Your task to perform on an android device: Search for "usb-c" on amazon, select the first entry, and add it to the cart. Image 0: 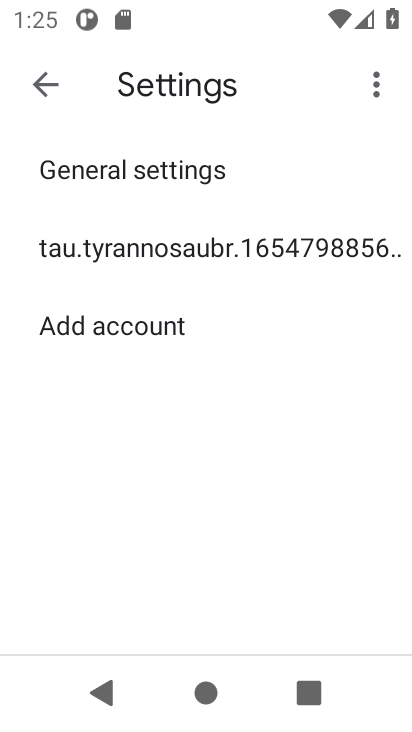
Step 0: press home button
Your task to perform on an android device: Search for "usb-c" on amazon, select the first entry, and add it to the cart. Image 1: 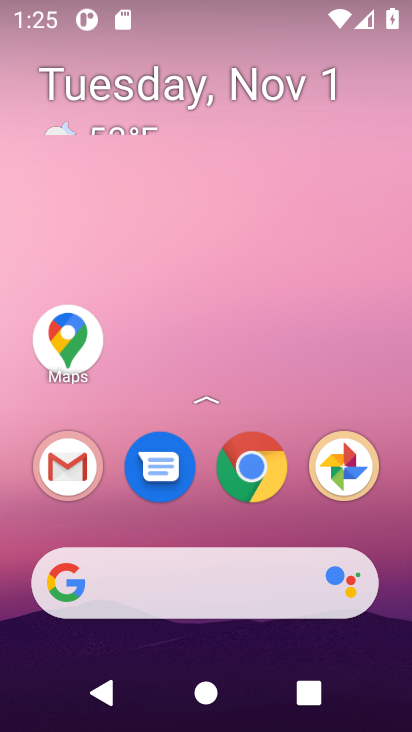
Step 1: click (252, 468)
Your task to perform on an android device: Search for "usb-c" on amazon, select the first entry, and add it to the cart. Image 2: 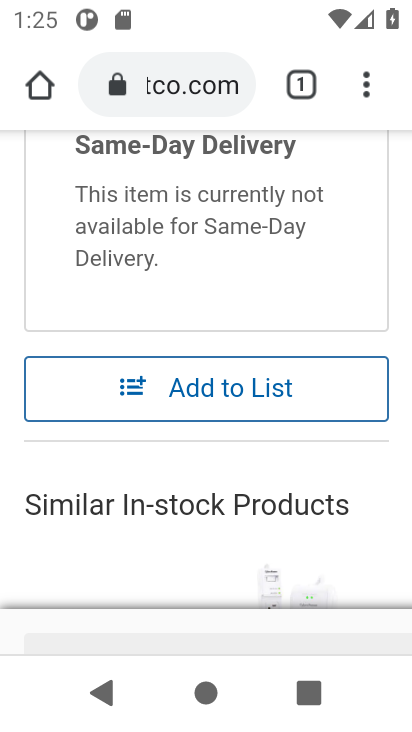
Step 2: click (216, 76)
Your task to perform on an android device: Search for "usb-c" on amazon, select the first entry, and add it to the cart. Image 3: 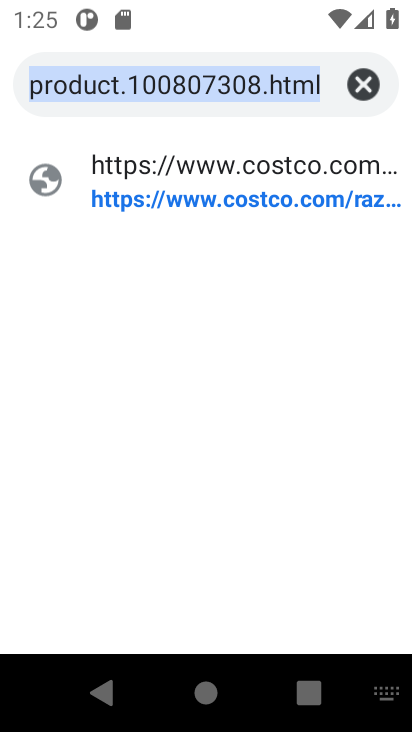
Step 3: click (364, 89)
Your task to perform on an android device: Search for "usb-c" on amazon, select the first entry, and add it to the cart. Image 4: 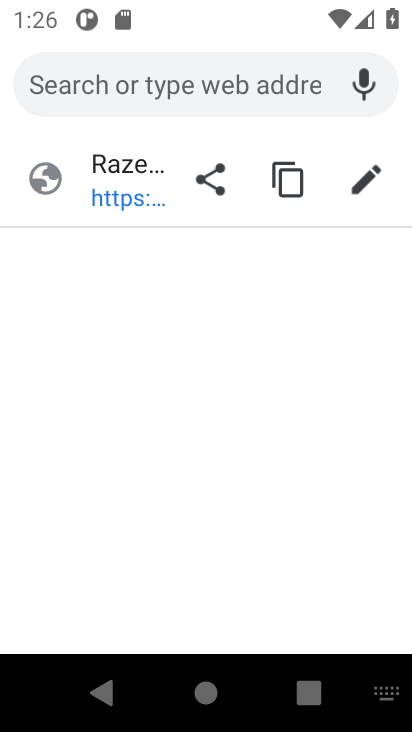
Step 4: type "amazon"
Your task to perform on an android device: Search for "usb-c" on amazon, select the first entry, and add it to the cart. Image 5: 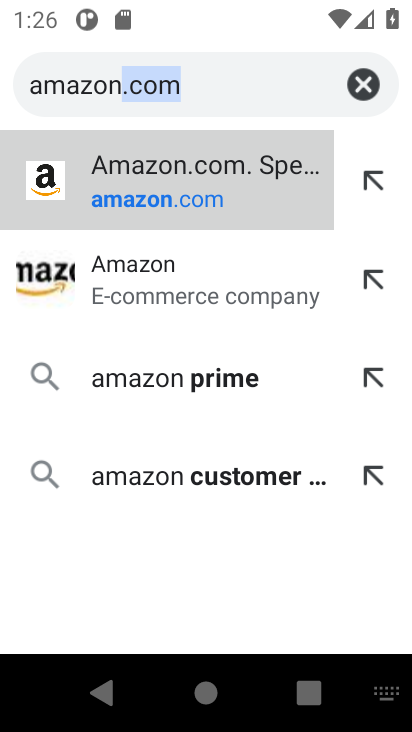
Step 5: click (133, 266)
Your task to perform on an android device: Search for "usb-c" on amazon, select the first entry, and add it to the cart. Image 6: 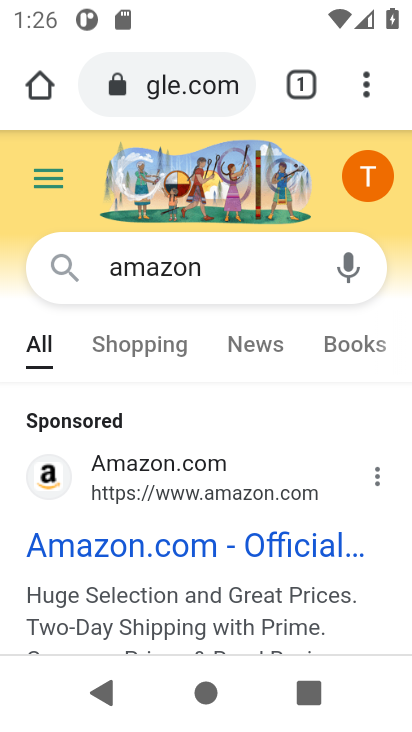
Step 6: drag from (239, 523) to (289, 150)
Your task to perform on an android device: Search for "usb-c" on amazon, select the first entry, and add it to the cart. Image 7: 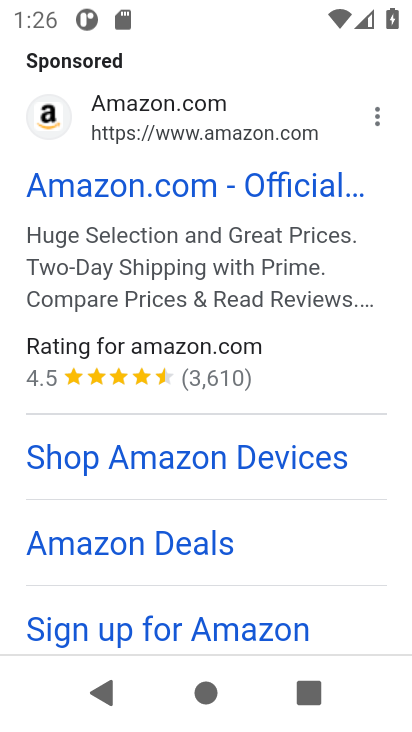
Step 7: drag from (288, 517) to (320, 127)
Your task to perform on an android device: Search for "usb-c" on amazon, select the first entry, and add it to the cart. Image 8: 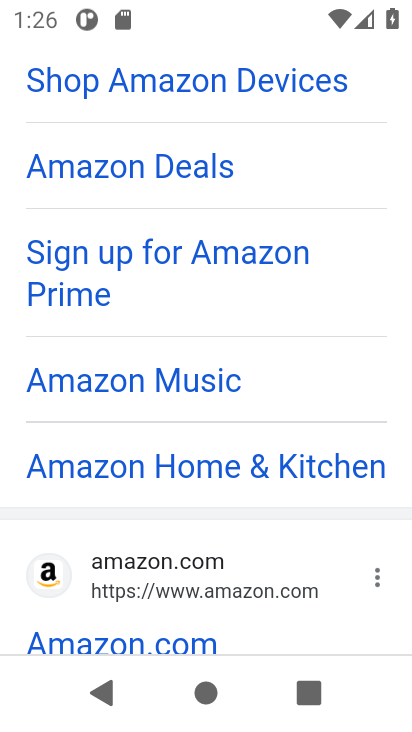
Step 8: click (203, 595)
Your task to perform on an android device: Search for "usb-c" on amazon, select the first entry, and add it to the cart. Image 9: 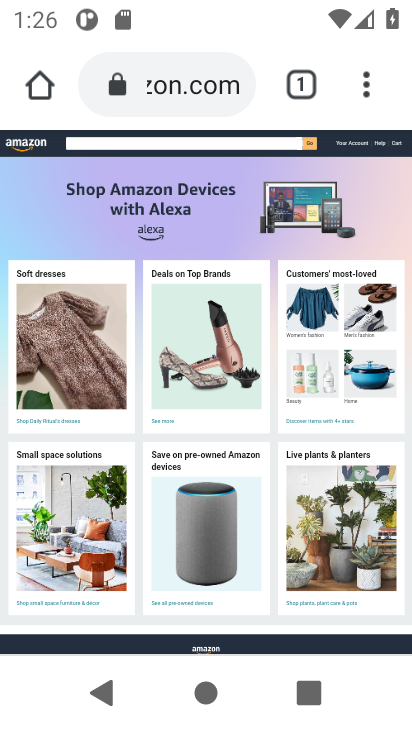
Step 9: click (180, 145)
Your task to perform on an android device: Search for "usb-c" on amazon, select the first entry, and add it to the cart. Image 10: 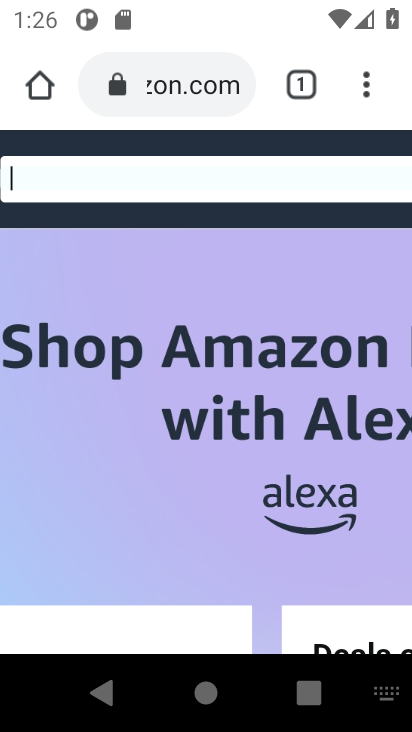
Step 10: type "usb-c"
Your task to perform on an android device: Search for "usb-c" on amazon, select the first entry, and add it to the cart. Image 11: 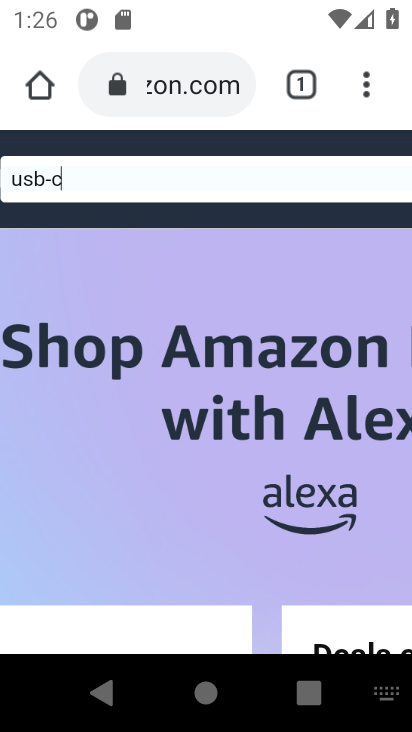
Step 11: drag from (305, 246) to (14, 263)
Your task to perform on an android device: Search for "usb-c" on amazon, select the first entry, and add it to the cart. Image 12: 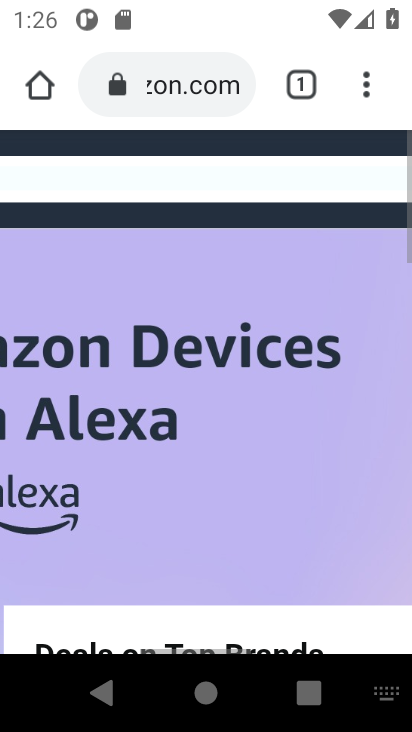
Step 12: drag from (286, 236) to (40, 232)
Your task to perform on an android device: Search for "usb-c" on amazon, select the first entry, and add it to the cart. Image 13: 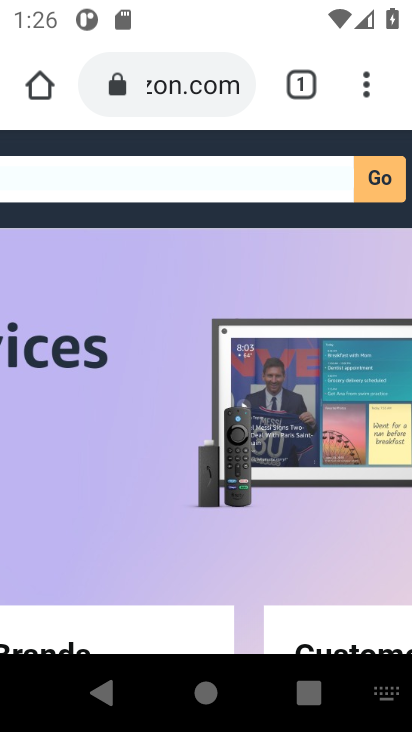
Step 13: click (342, 176)
Your task to perform on an android device: Search for "usb-c" on amazon, select the first entry, and add it to the cart. Image 14: 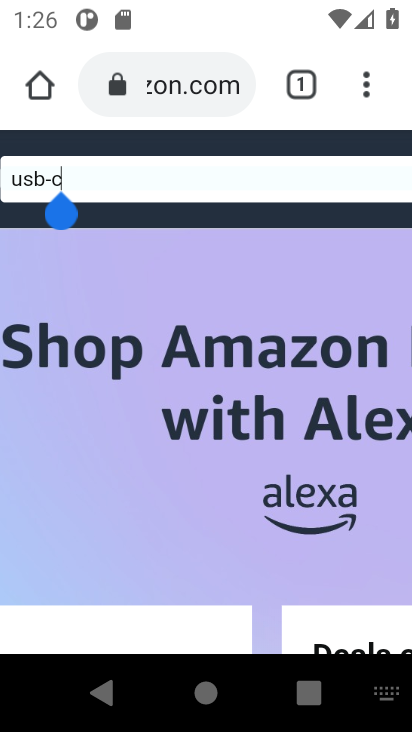
Step 14: drag from (339, 215) to (24, 224)
Your task to perform on an android device: Search for "usb-c" on amazon, select the first entry, and add it to the cart. Image 15: 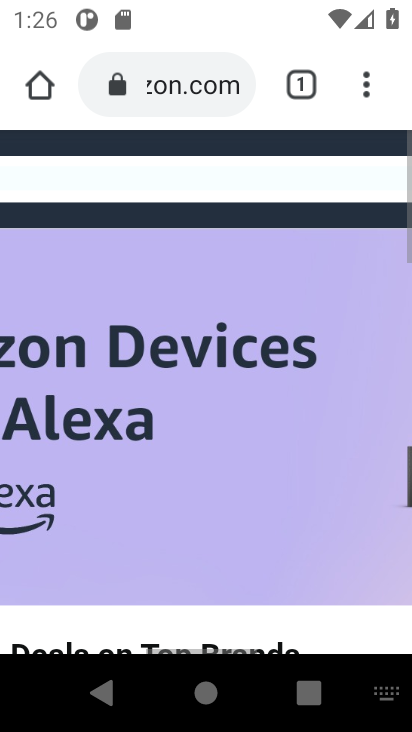
Step 15: drag from (300, 185) to (29, 188)
Your task to perform on an android device: Search for "usb-c" on amazon, select the first entry, and add it to the cart. Image 16: 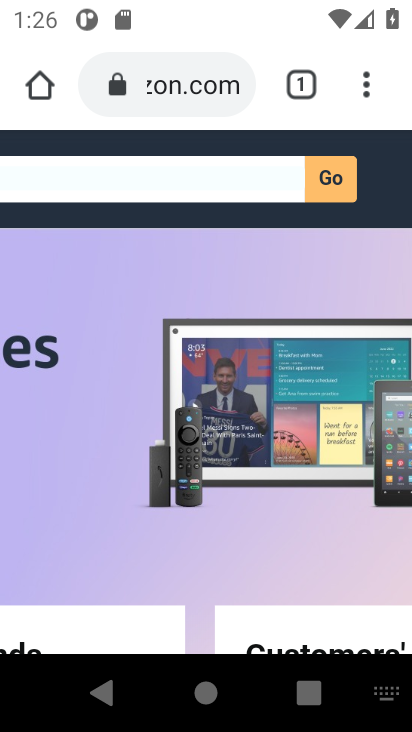
Step 16: click (330, 177)
Your task to perform on an android device: Search for "usb-c" on amazon, select the first entry, and add it to the cart. Image 17: 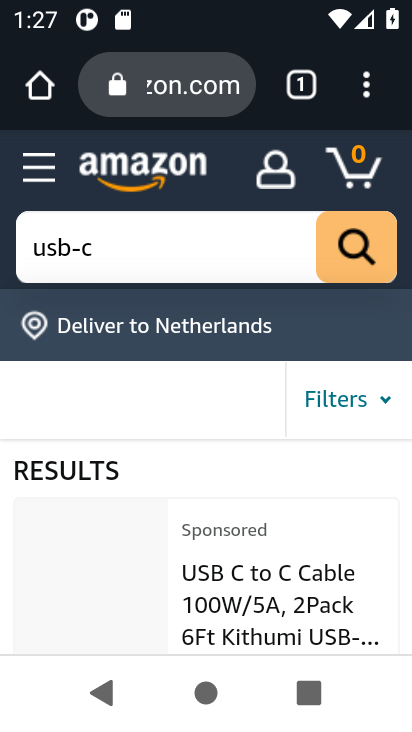
Step 17: click (290, 586)
Your task to perform on an android device: Search for "usb-c" on amazon, select the first entry, and add it to the cart. Image 18: 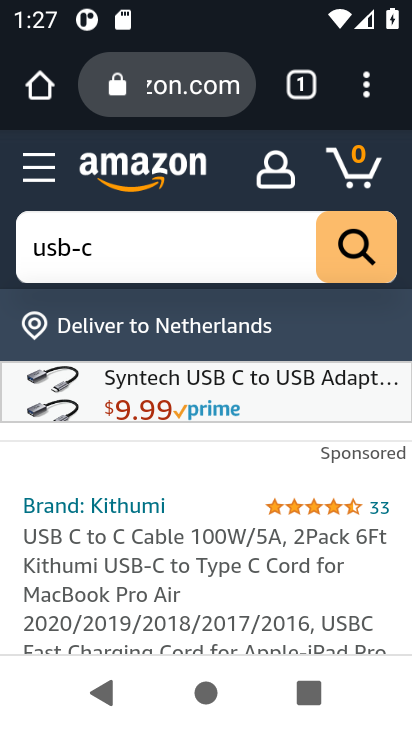
Step 18: drag from (285, 605) to (293, 215)
Your task to perform on an android device: Search for "usb-c" on amazon, select the first entry, and add it to the cart. Image 19: 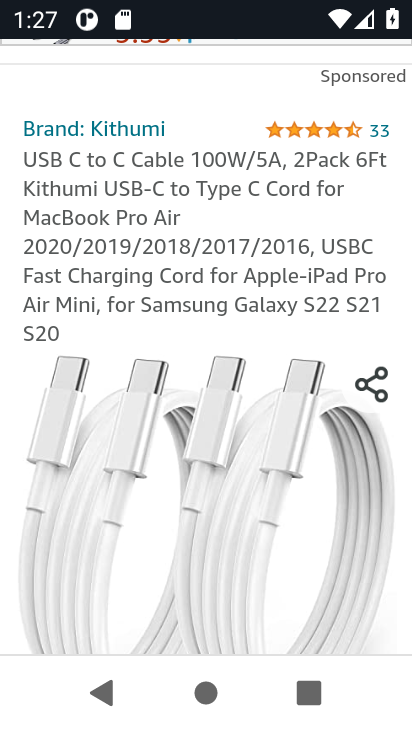
Step 19: drag from (253, 498) to (237, 78)
Your task to perform on an android device: Search for "usb-c" on amazon, select the first entry, and add it to the cart. Image 20: 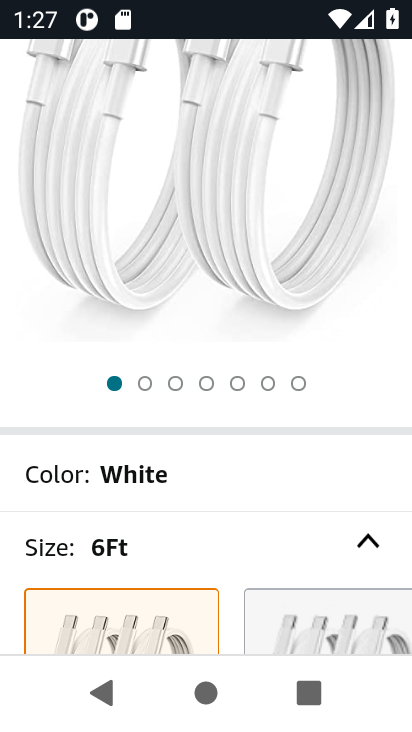
Step 20: drag from (170, 451) to (215, 155)
Your task to perform on an android device: Search for "usb-c" on amazon, select the first entry, and add it to the cart. Image 21: 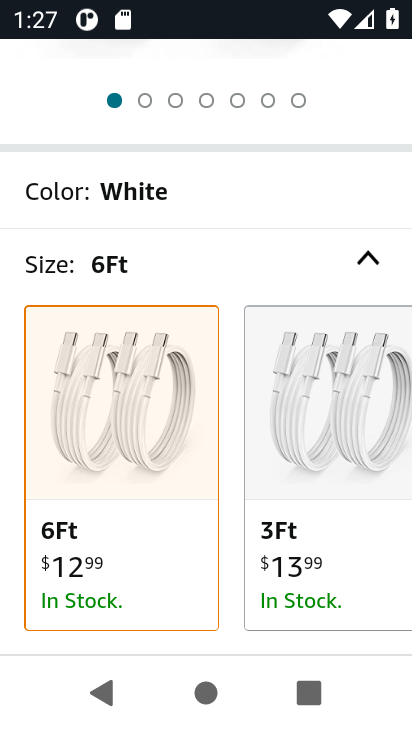
Step 21: drag from (231, 529) to (273, 179)
Your task to perform on an android device: Search for "usb-c" on amazon, select the first entry, and add it to the cart. Image 22: 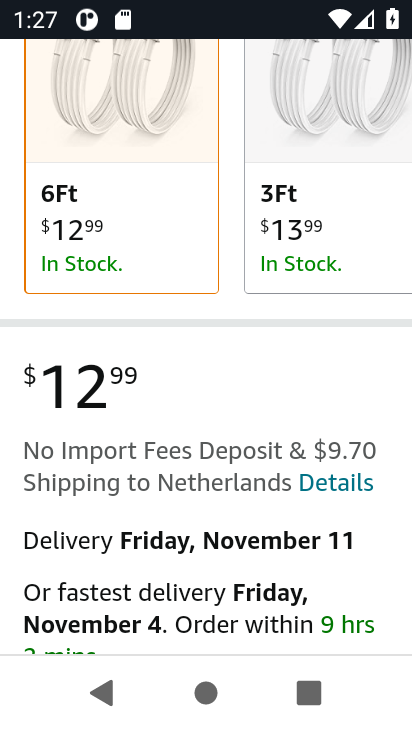
Step 22: drag from (234, 573) to (262, 281)
Your task to perform on an android device: Search for "usb-c" on amazon, select the first entry, and add it to the cart. Image 23: 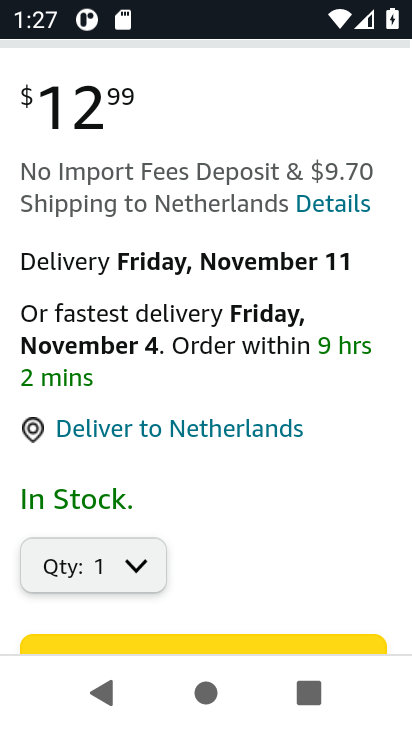
Step 23: drag from (253, 472) to (259, 288)
Your task to perform on an android device: Search for "usb-c" on amazon, select the first entry, and add it to the cart. Image 24: 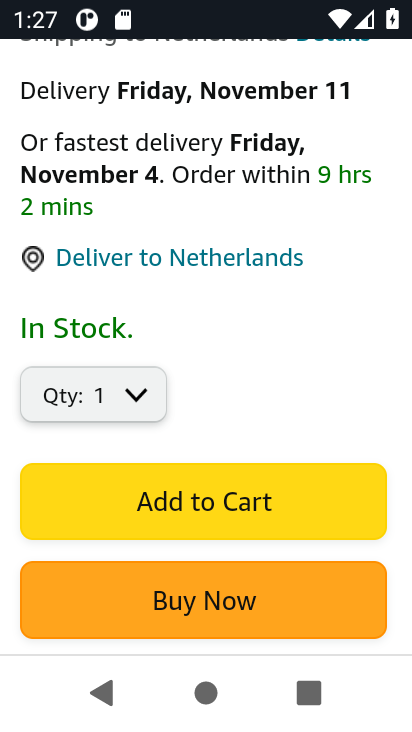
Step 24: click (206, 506)
Your task to perform on an android device: Search for "usb-c" on amazon, select the first entry, and add it to the cart. Image 25: 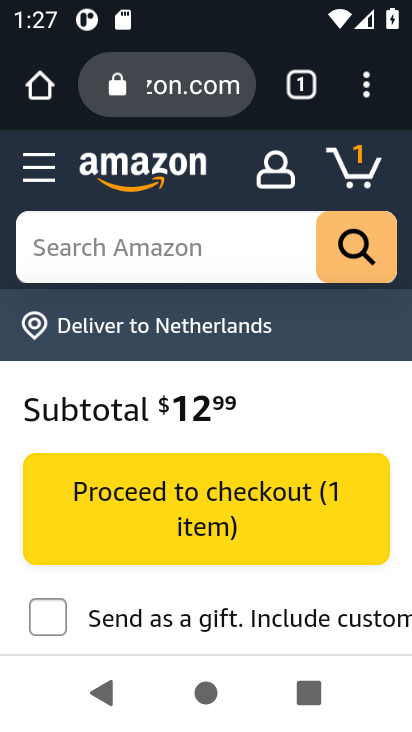
Step 25: click (366, 159)
Your task to perform on an android device: Search for "usb-c" on amazon, select the first entry, and add it to the cart. Image 26: 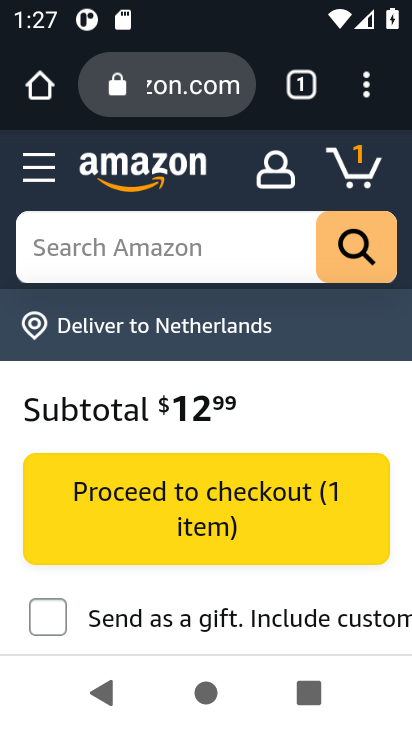
Step 26: click (361, 163)
Your task to perform on an android device: Search for "usb-c" on amazon, select the first entry, and add it to the cart. Image 27: 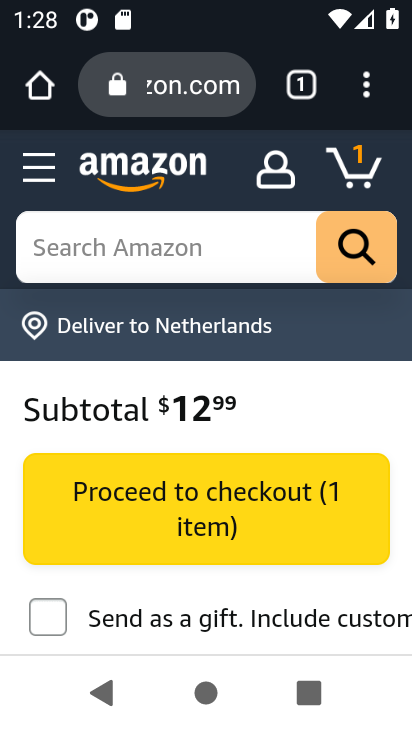
Step 27: task complete